Your task to perform on an android device: What's the weather? Image 0: 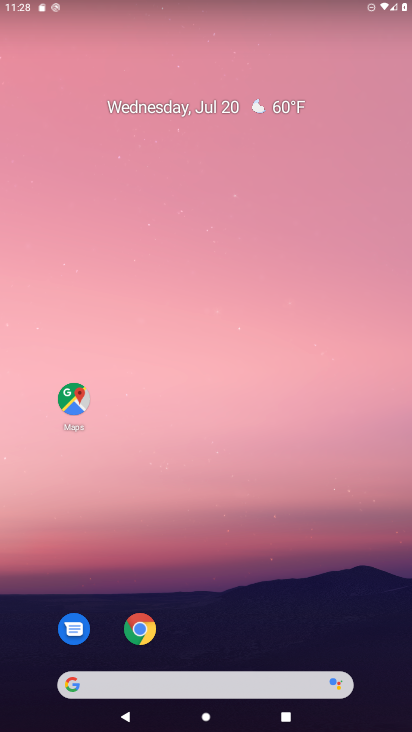
Step 0: drag from (205, 621) to (211, 106)
Your task to perform on an android device: What's the weather? Image 1: 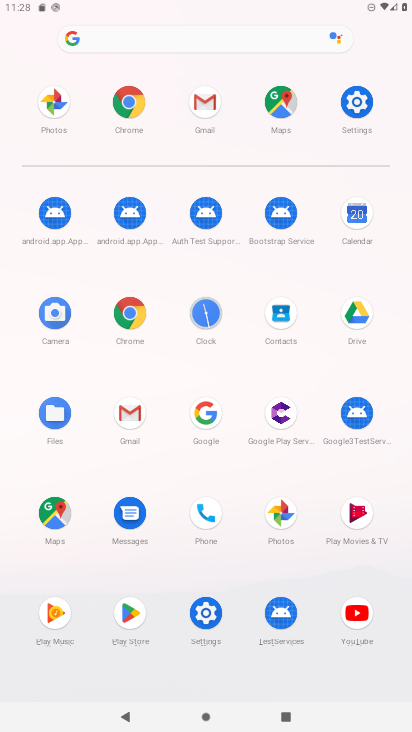
Step 1: click (206, 430)
Your task to perform on an android device: What's the weather? Image 2: 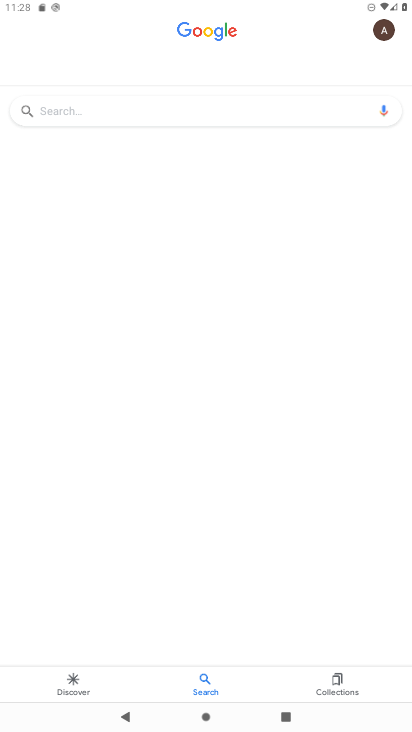
Step 2: click (133, 107)
Your task to perform on an android device: What's the weather? Image 3: 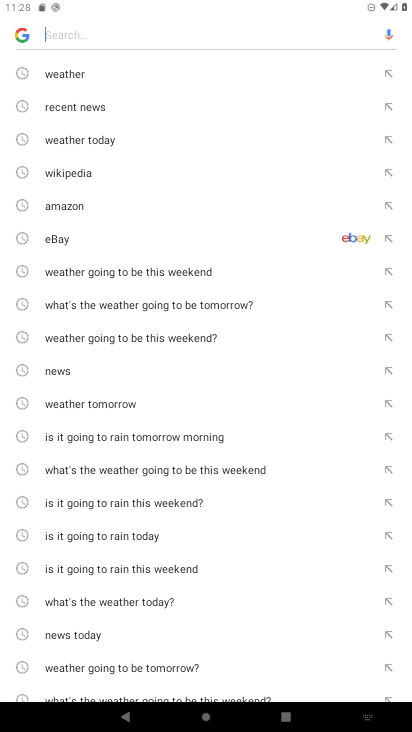
Step 3: click (90, 78)
Your task to perform on an android device: What's the weather? Image 4: 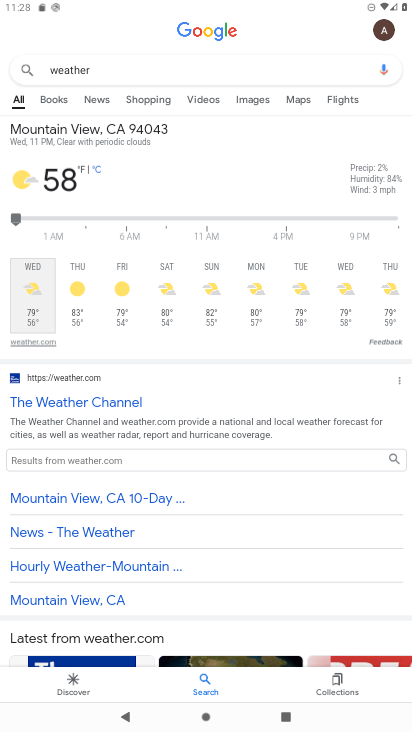
Step 4: task complete